Your task to perform on an android device: turn off airplane mode Image 0: 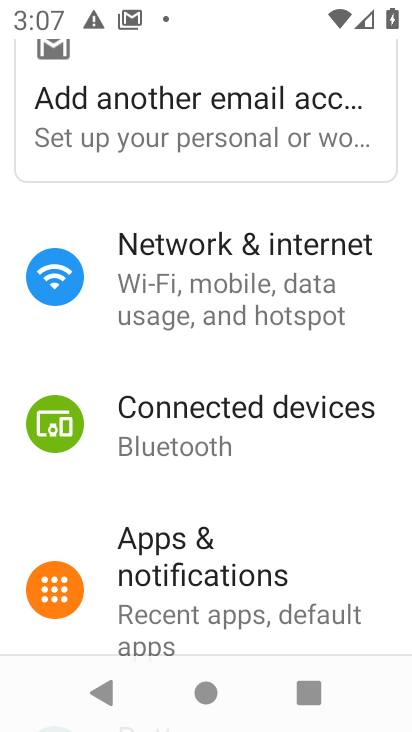
Step 0: press home button
Your task to perform on an android device: turn off airplane mode Image 1: 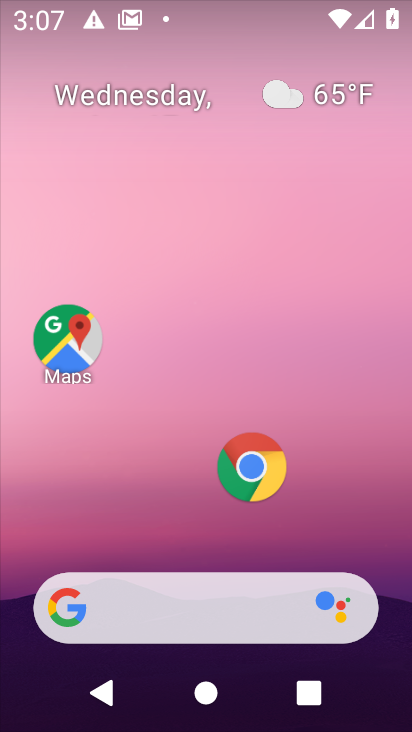
Step 1: press home button
Your task to perform on an android device: turn off airplane mode Image 2: 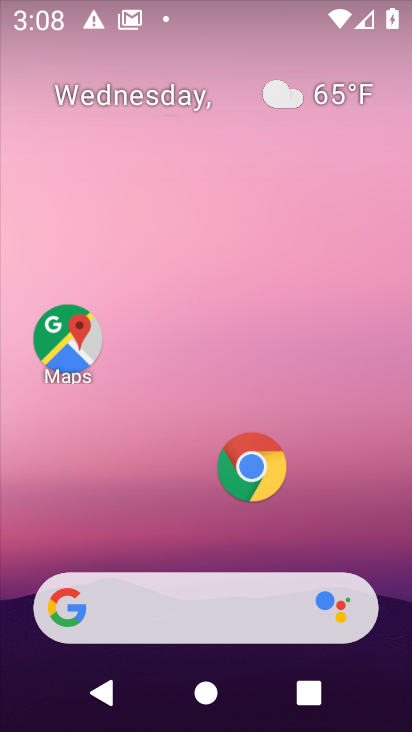
Step 2: drag from (153, 549) to (224, 179)
Your task to perform on an android device: turn off airplane mode Image 3: 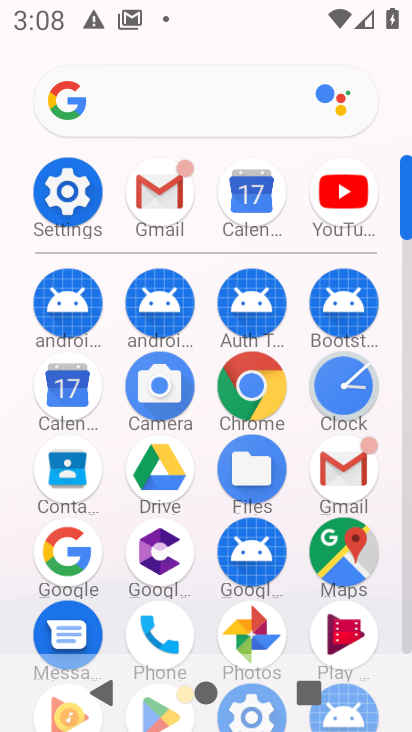
Step 3: drag from (203, 602) to (216, 394)
Your task to perform on an android device: turn off airplane mode Image 4: 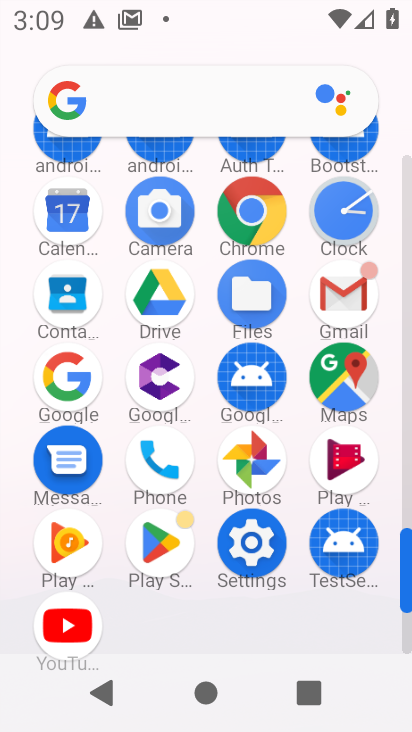
Step 4: click (258, 532)
Your task to perform on an android device: turn off airplane mode Image 5: 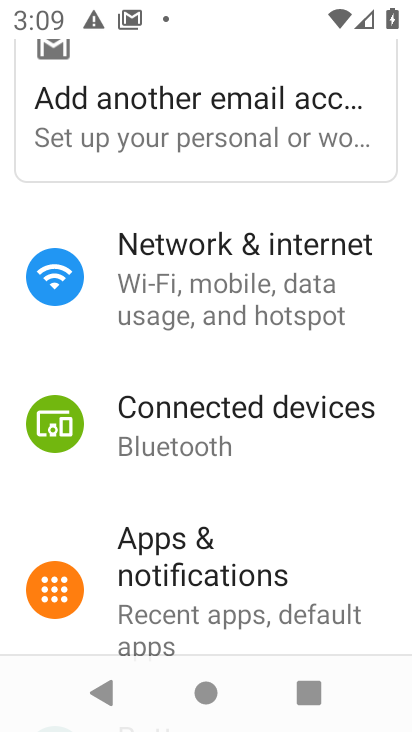
Step 5: task complete